Your task to perform on an android device: Open the web browser Image 0: 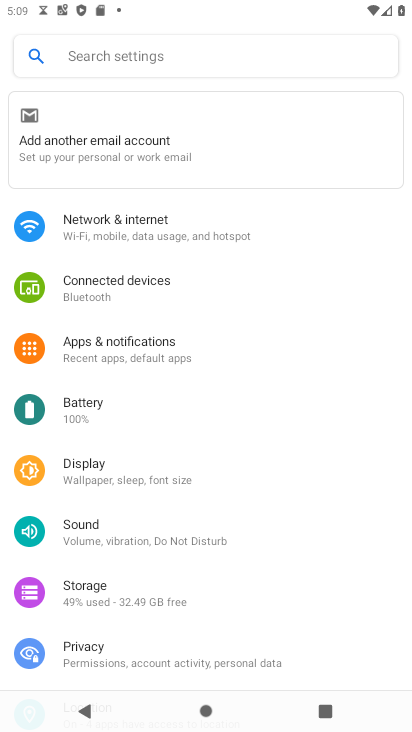
Step 0: press back button
Your task to perform on an android device: Open the web browser Image 1: 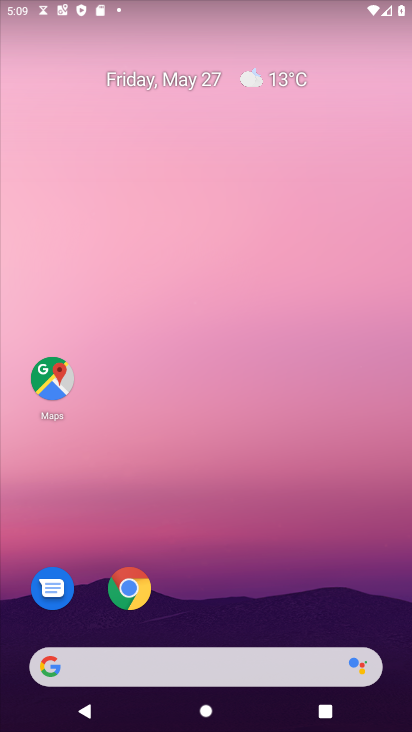
Step 1: click (123, 578)
Your task to perform on an android device: Open the web browser Image 2: 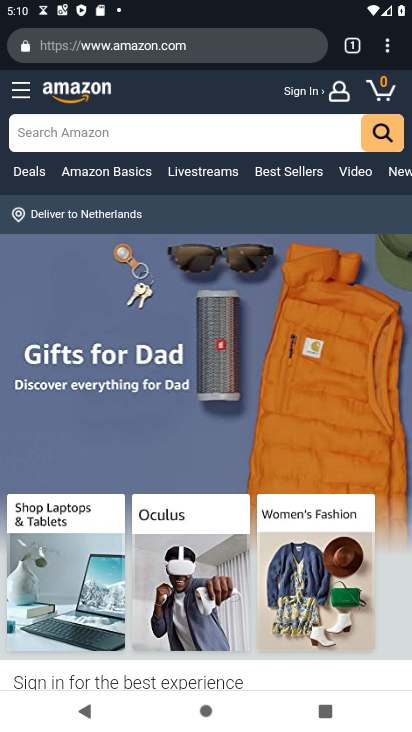
Step 2: task complete